Your task to perform on an android device: turn vacation reply on in the gmail app Image 0: 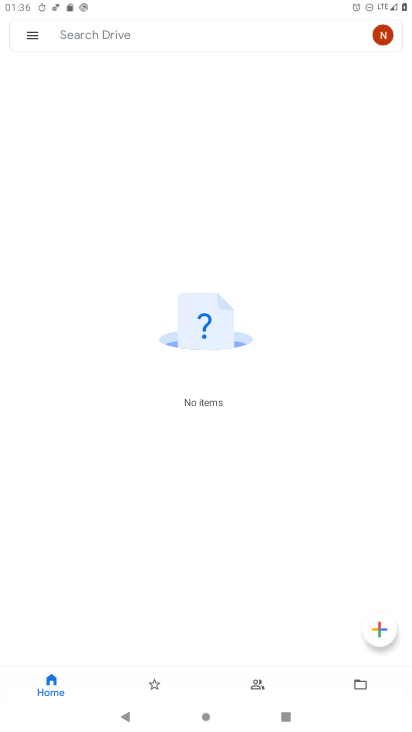
Step 0: press home button
Your task to perform on an android device: turn vacation reply on in the gmail app Image 1: 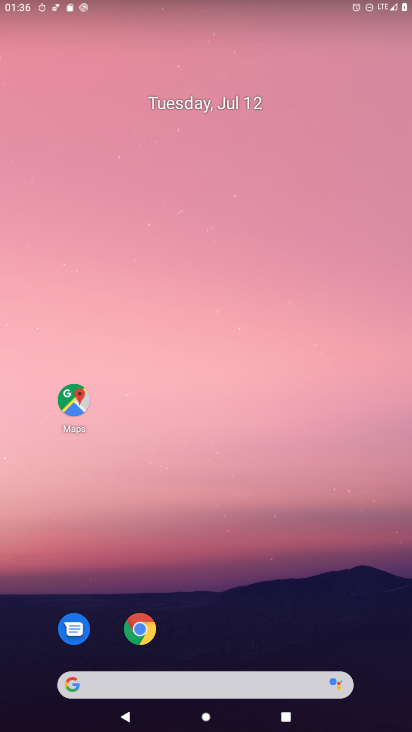
Step 1: drag from (32, 708) to (217, 3)
Your task to perform on an android device: turn vacation reply on in the gmail app Image 2: 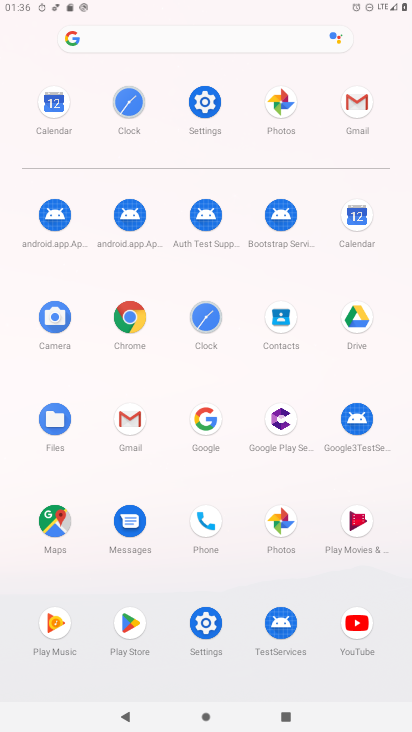
Step 2: click (121, 435)
Your task to perform on an android device: turn vacation reply on in the gmail app Image 3: 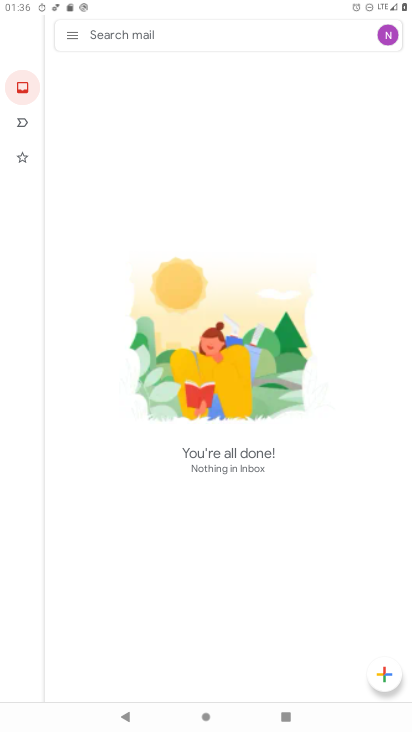
Step 3: click (73, 34)
Your task to perform on an android device: turn vacation reply on in the gmail app Image 4: 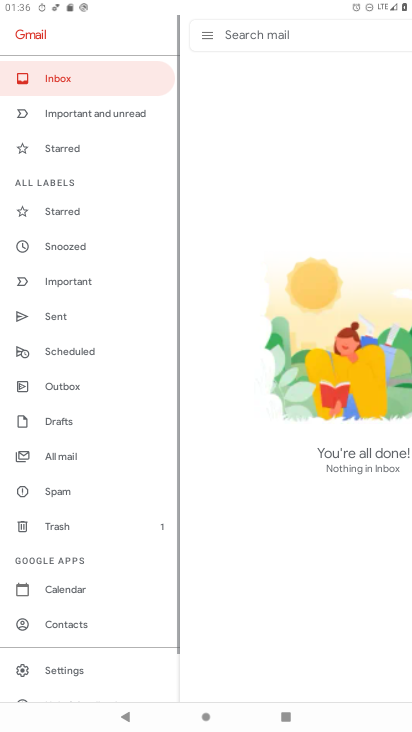
Step 4: click (117, 90)
Your task to perform on an android device: turn vacation reply on in the gmail app Image 5: 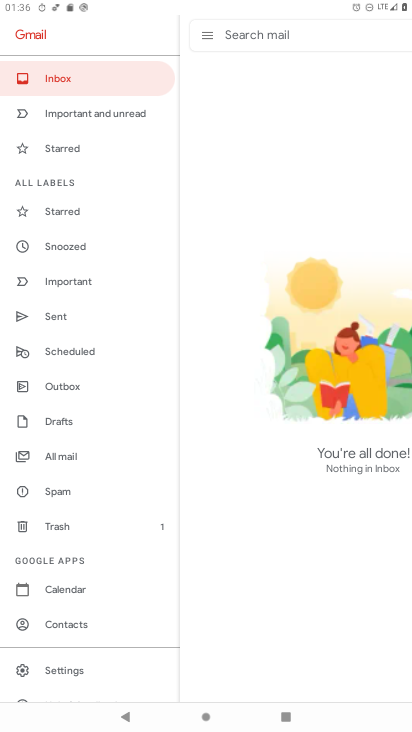
Step 5: click (118, 75)
Your task to perform on an android device: turn vacation reply on in the gmail app Image 6: 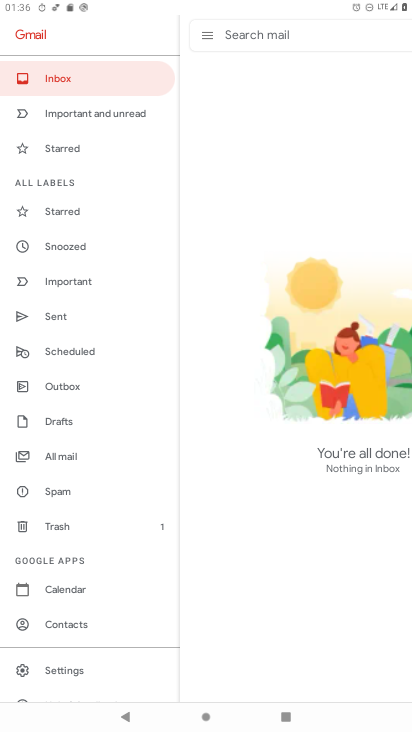
Step 6: task complete